Your task to perform on an android device: Search for pizza restaurants on Maps Image 0: 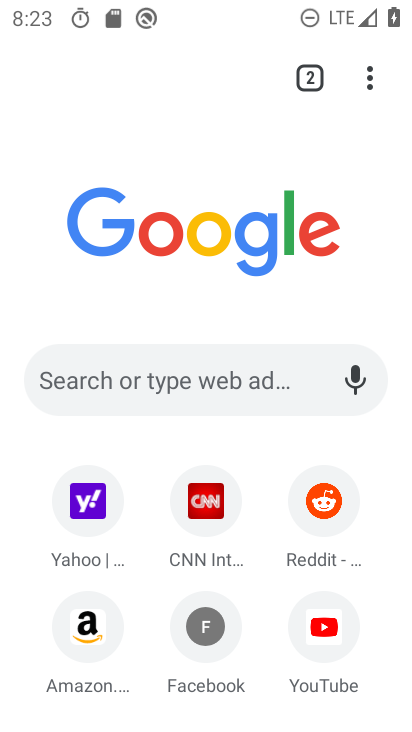
Step 0: press home button
Your task to perform on an android device: Search for pizza restaurants on Maps Image 1: 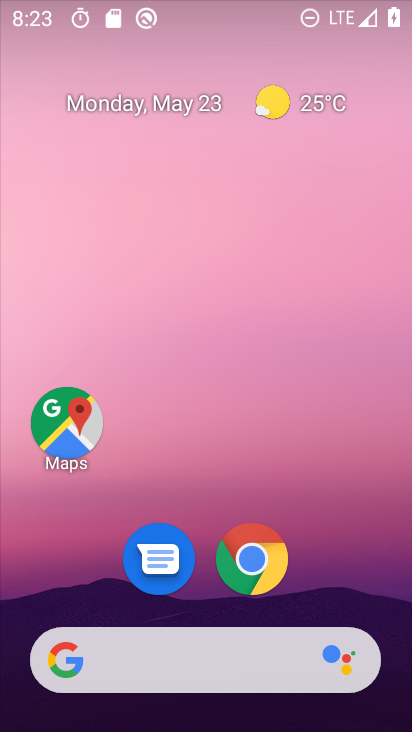
Step 1: drag from (385, 638) to (313, 87)
Your task to perform on an android device: Search for pizza restaurants on Maps Image 2: 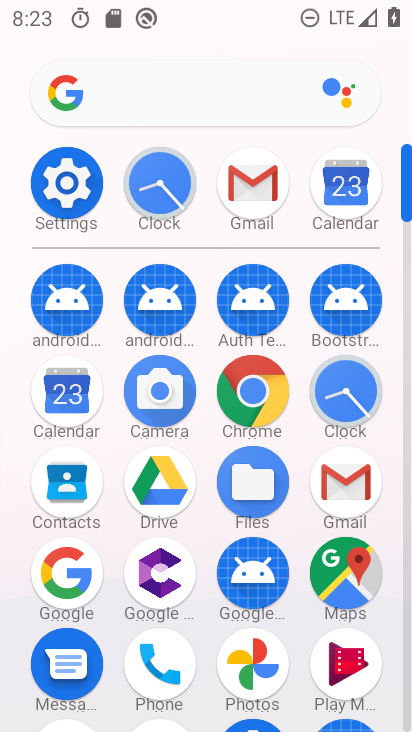
Step 2: click (352, 556)
Your task to perform on an android device: Search for pizza restaurants on Maps Image 3: 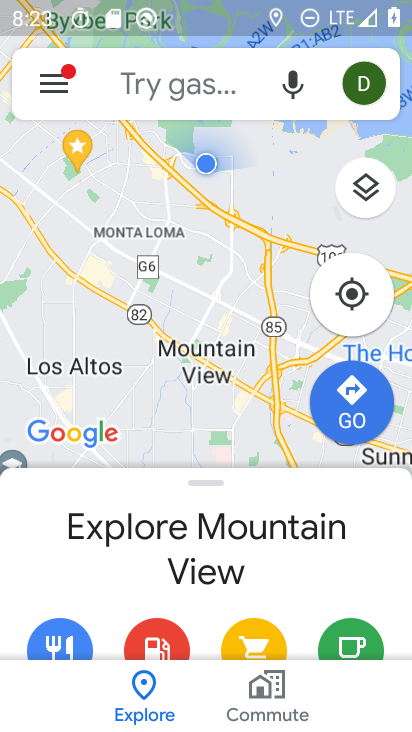
Step 3: click (157, 97)
Your task to perform on an android device: Search for pizza restaurants on Maps Image 4: 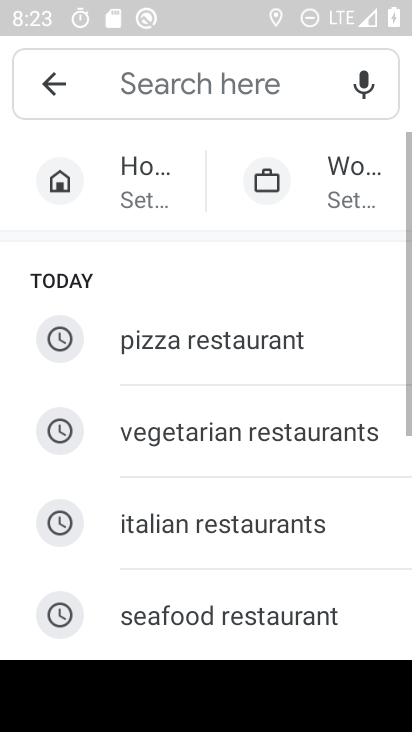
Step 4: click (174, 337)
Your task to perform on an android device: Search for pizza restaurants on Maps Image 5: 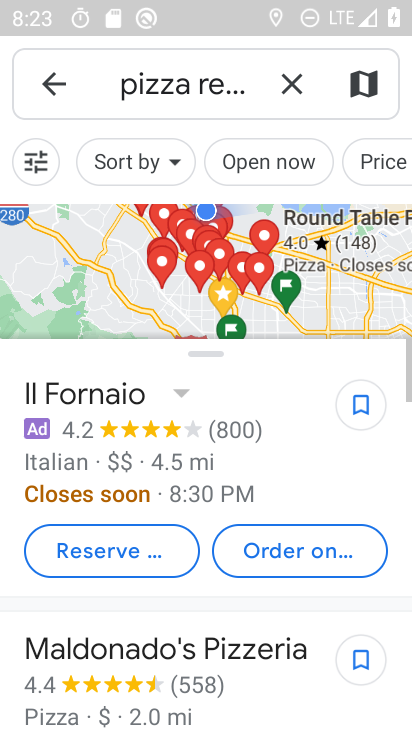
Step 5: task complete